Your task to perform on an android device: toggle airplane mode Image 0: 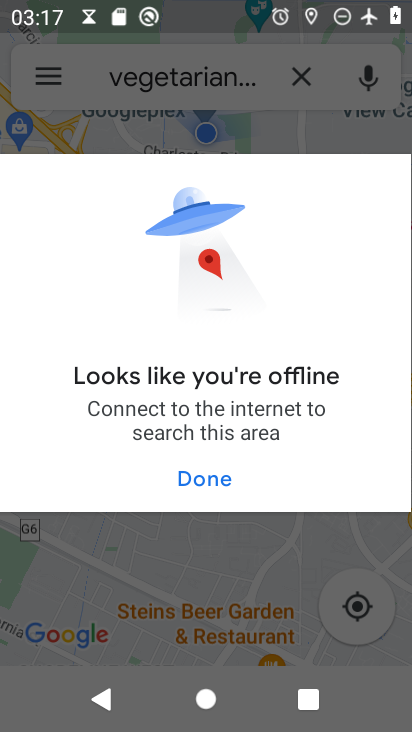
Step 0: press home button
Your task to perform on an android device: toggle airplane mode Image 1: 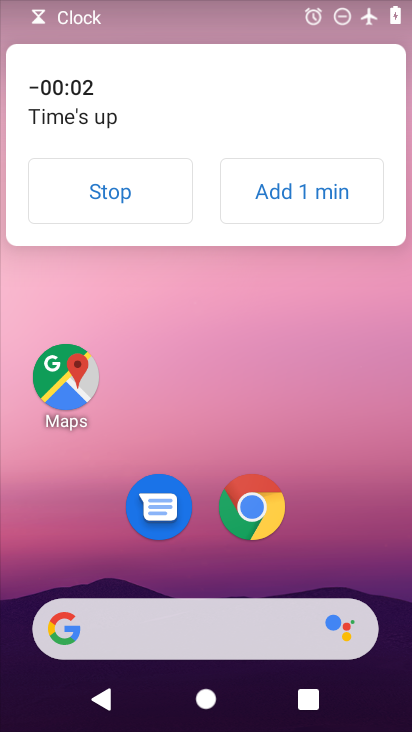
Step 1: click (127, 211)
Your task to perform on an android device: toggle airplane mode Image 2: 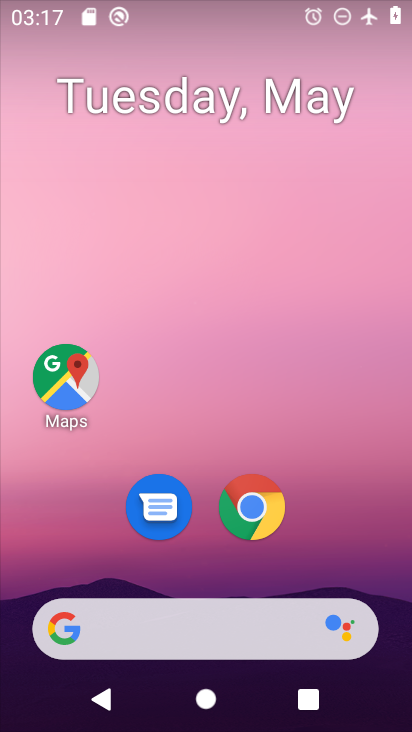
Step 2: drag from (204, 571) to (225, 203)
Your task to perform on an android device: toggle airplane mode Image 3: 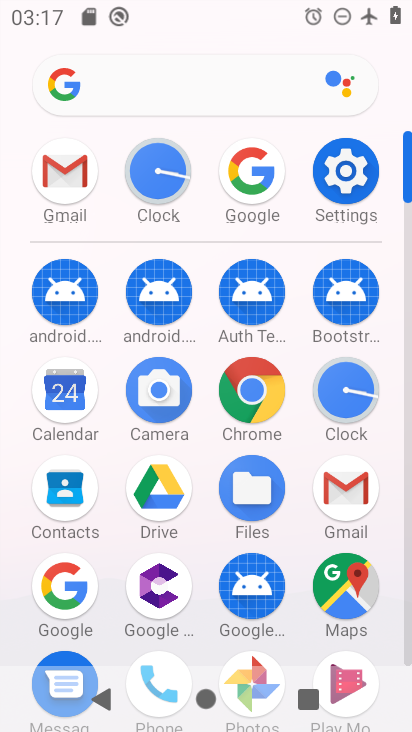
Step 3: click (326, 181)
Your task to perform on an android device: toggle airplane mode Image 4: 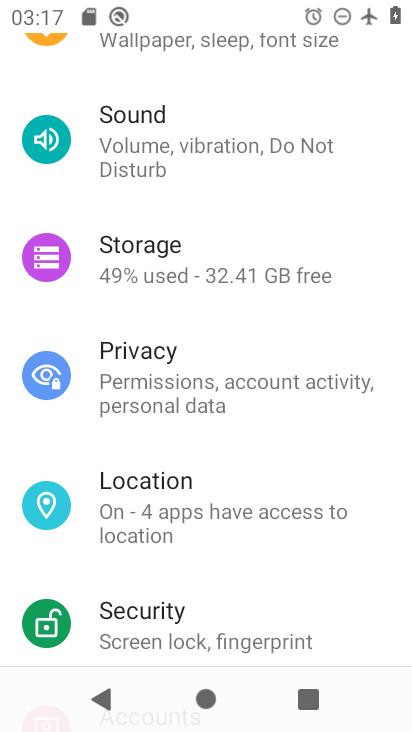
Step 4: drag from (266, 215) to (266, 493)
Your task to perform on an android device: toggle airplane mode Image 5: 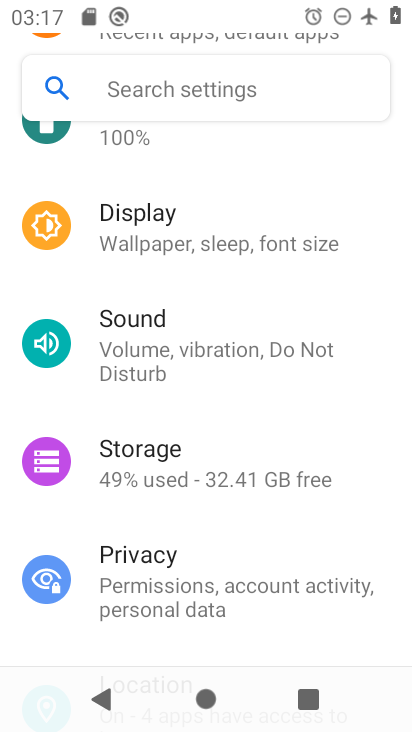
Step 5: drag from (240, 225) to (240, 442)
Your task to perform on an android device: toggle airplane mode Image 6: 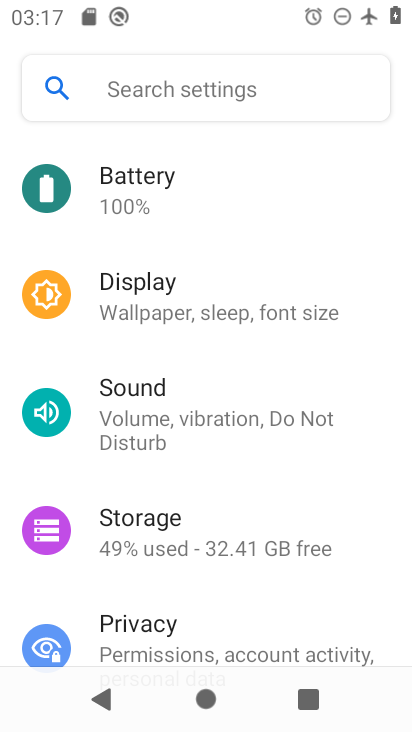
Step 6: drag from (230, 304) to (230, 520)
Your task to perform on an android device: toggle airplane mode Image 7: 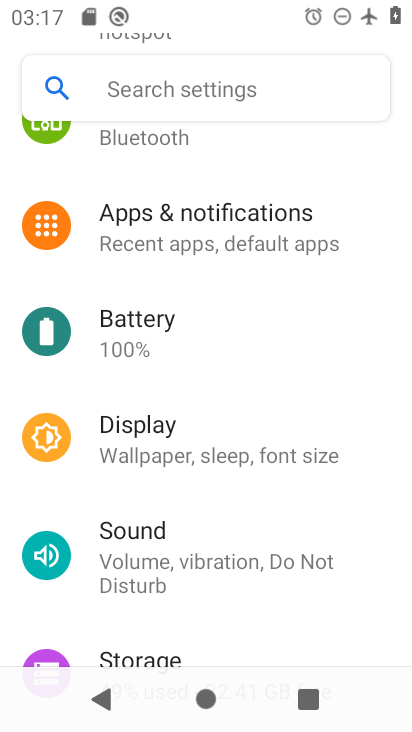
Step 7: drag from (230, 306) to (230, 489)
Your task to perform on an android device: toggle airplane mode Image 8: 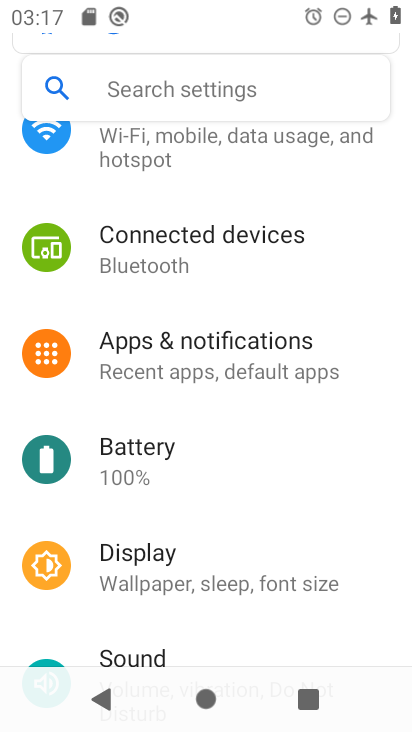
Step 8: drag from (203, 259) to (236, 487)
Your task to perform on an android device: toggle airplane mode Image 9: 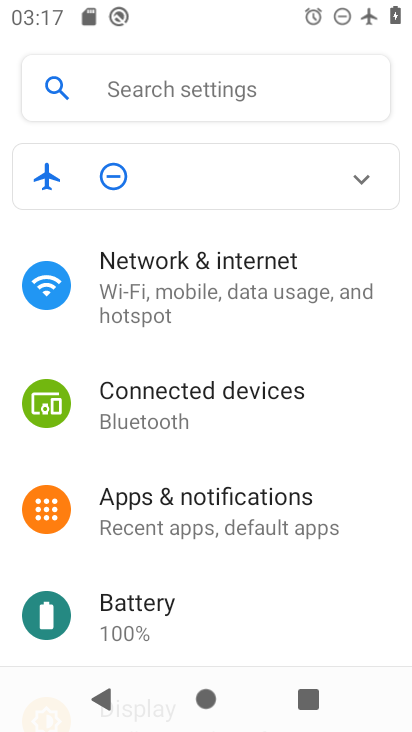
Step 9: click (212, 266)
Your task to perform on an android device: toggle airplane mode Image 10: 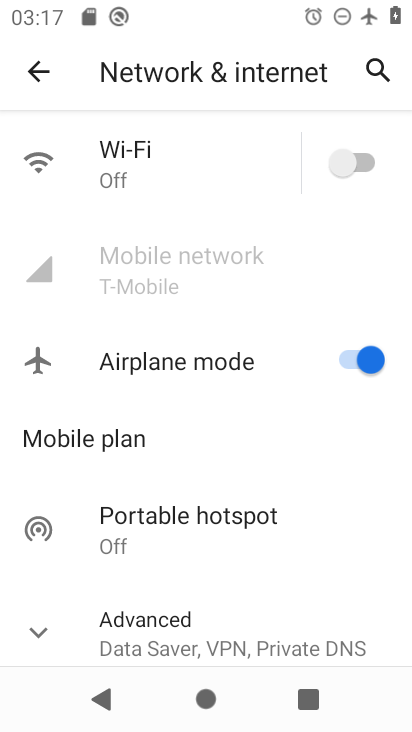
Step 10: click (338, 369)
Your task to perform on an android device: toggle airplane mode Image 11: 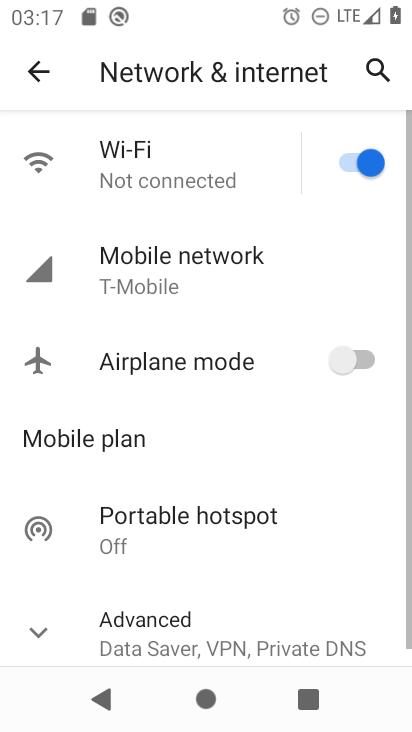
Step 11: task complete